Your task to perform on an android device: Open Google Image 0: 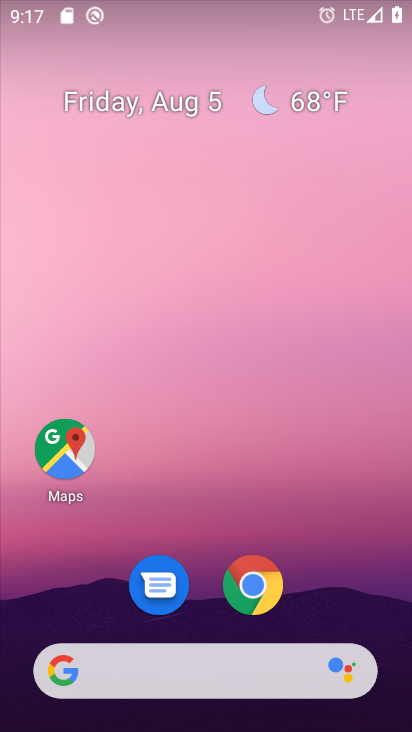
Step 0: click (235, 668)
Your task to perform on an android device: Open Google Image 1: 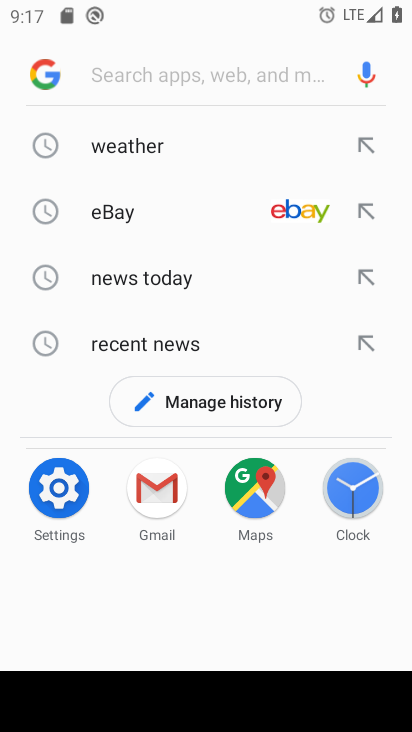
Step 1: click (47, 78)
Your task to perform on an android device: Open Google Image 2: 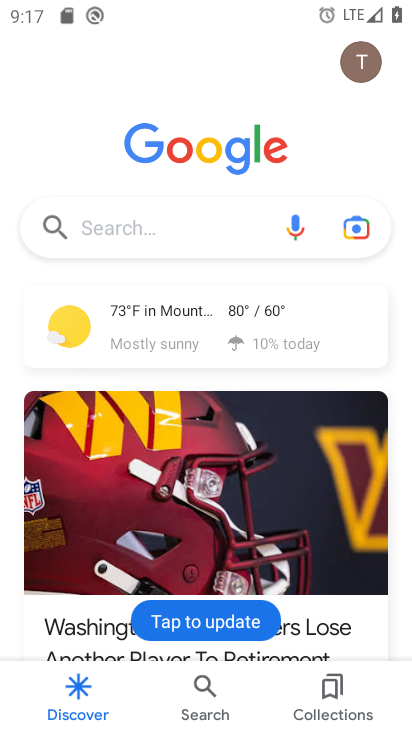
Step 2: task complete